Your task to perform on an android device: Open Youtube and go to "Your channel" Image 0: 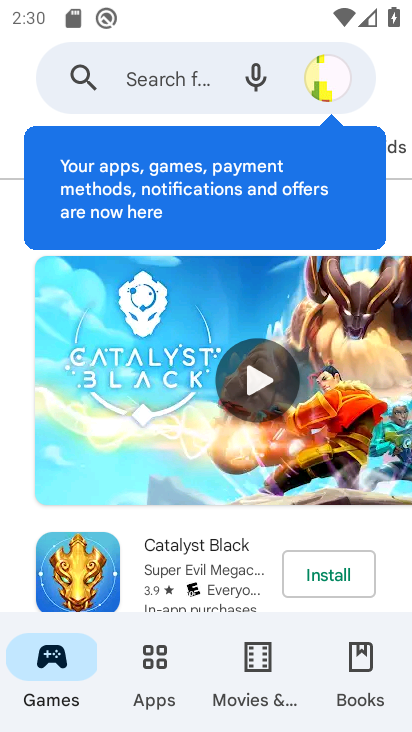
Step 0: press home button
Your task to perform on an android device: Open Youtube and go to "Your channel" Image 1: 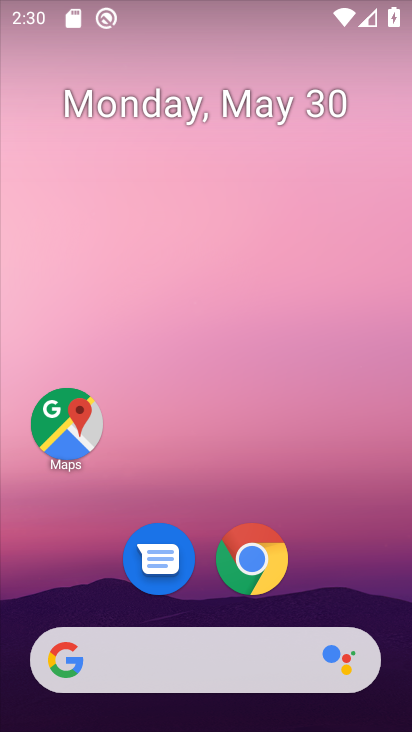
Step 1: drag from (363, 543) to (315, 155)
Your task to perform on an android device: Open Youtube and go to "Your channel" Image 2: 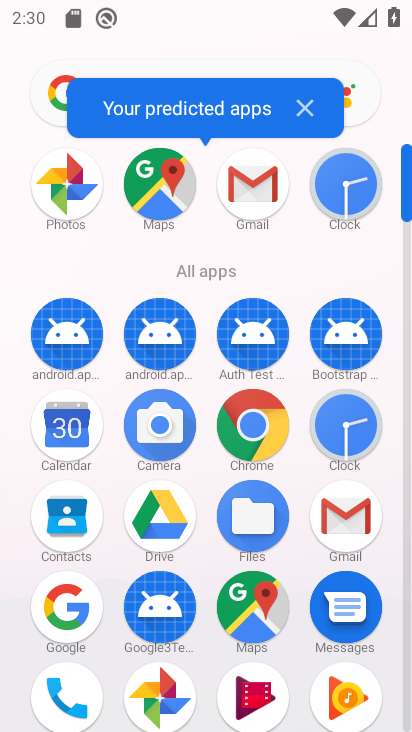
Step 2: drag from (279, 655) to (260, 282)
Your task to perform on an android device: Open Youtube and go to "Your channel" Image 3: 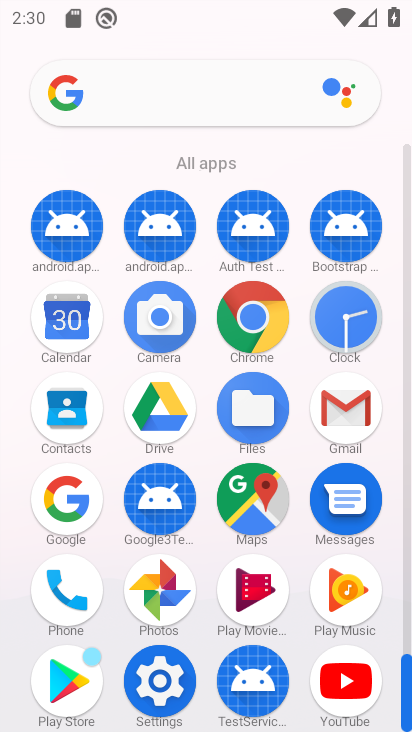
Step 3: drag from (276, 643) to (261, 224)
Your task to perform on an android device: Open Youtube and go to "Your channel" Image 4: 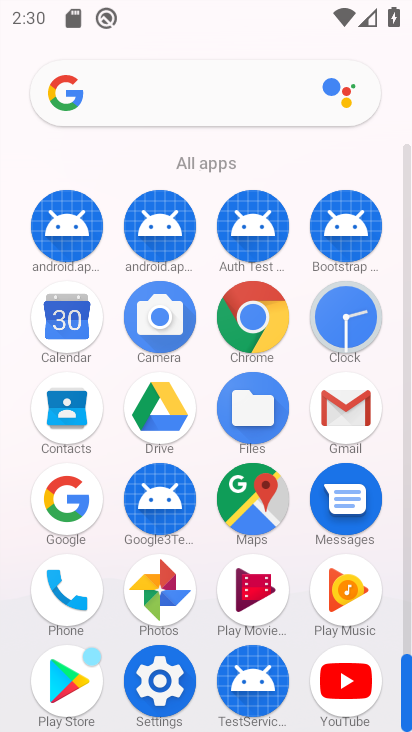
Step 4: click (339, 704)
Your task to perform on an android device: Open Youtube and go to "Your channel" Image 5: 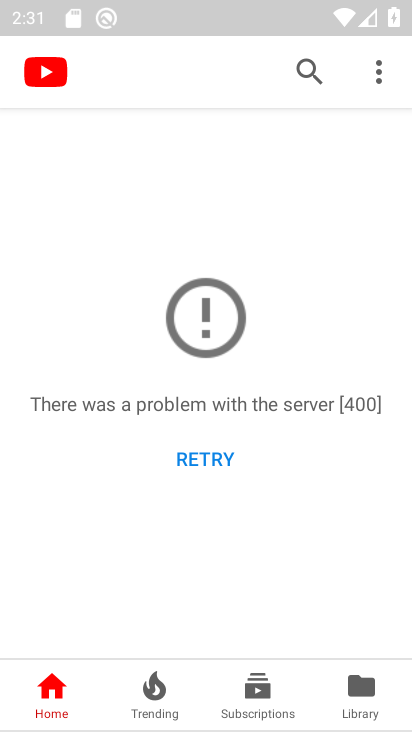
Step 5: click (350, 699)
Your task to perform on an android device: Open Youtube and go to "Your channel" Image 6: 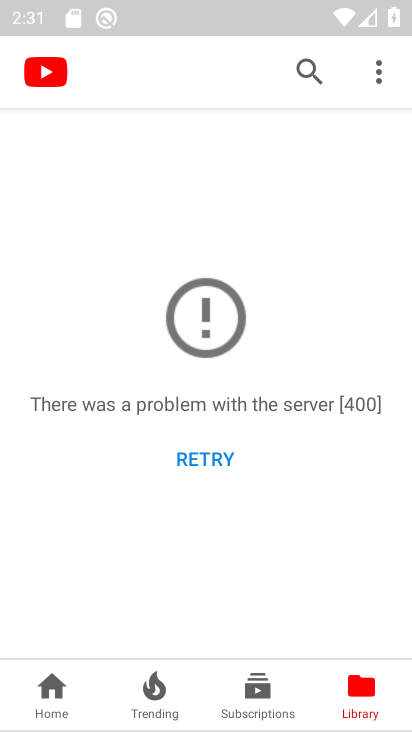
Step 6: task complete